Your task to perform on an android device: Go to wifi settings Image 0: 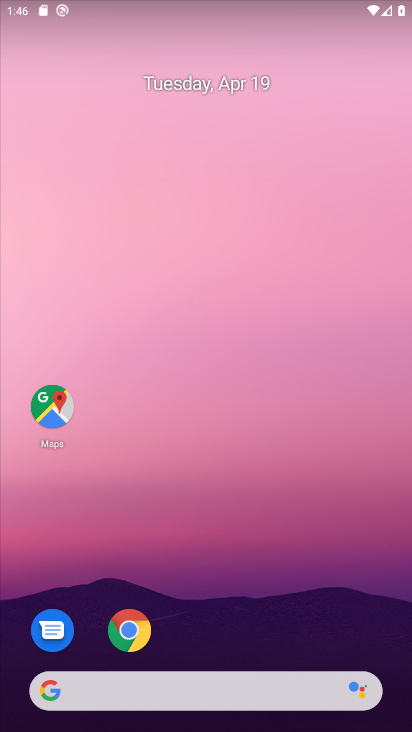
Step 0: drag from (284, 634) to (282, 62)
Your task to perform on an android device: Go to wifi settings Image 1: 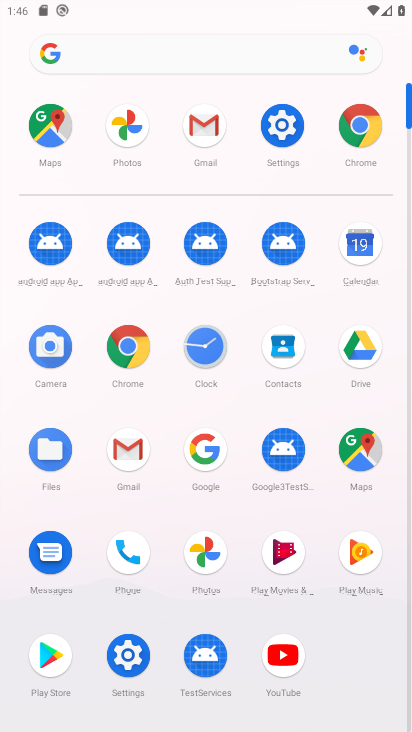
Step 1: click (283, 130)
Your task to perform on an android device: Go to wifi settings Image 2: 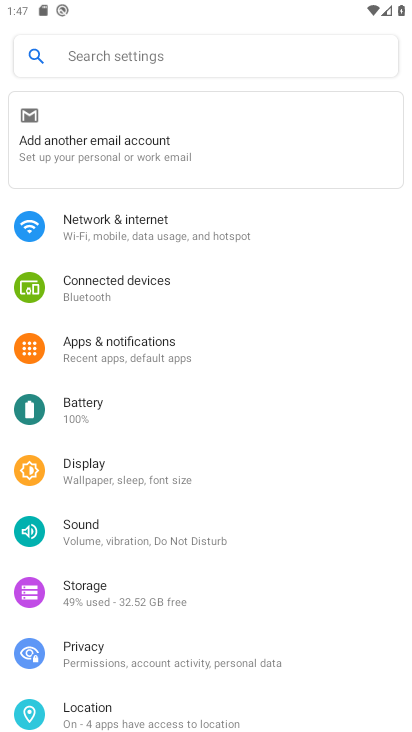
Step 2: click (260, 227)
Your task to perform on an android device: Go to wifi settings Image 3: 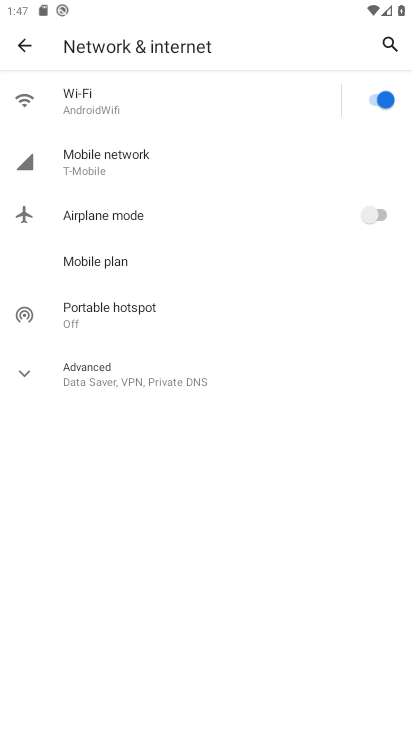
Step 3: click (111, 91)
Your task to perform on an android device: Go to wifi settings Image 4: 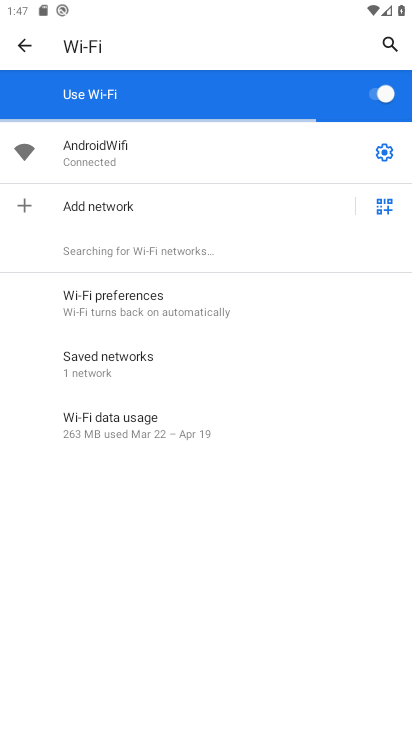
Step 4: click (388, 147)
Your task to perform on an android device: Go to wifi settings Image 5: 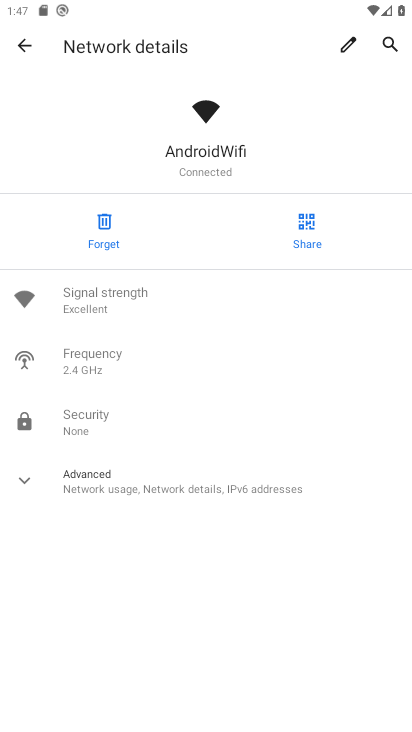
Step 5: task complete